Your task to perform on an android device: turn on priority inbox in the gmail app Image 0: 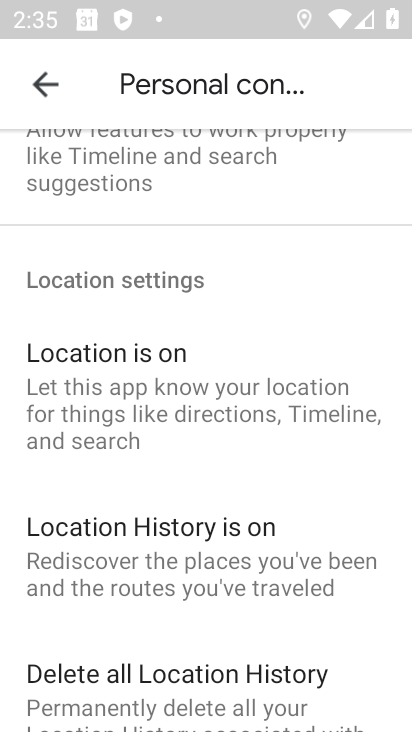
Step 0: press home button
Your task to perform on an android device: turn on priority inbox in the gmail app Image 1: 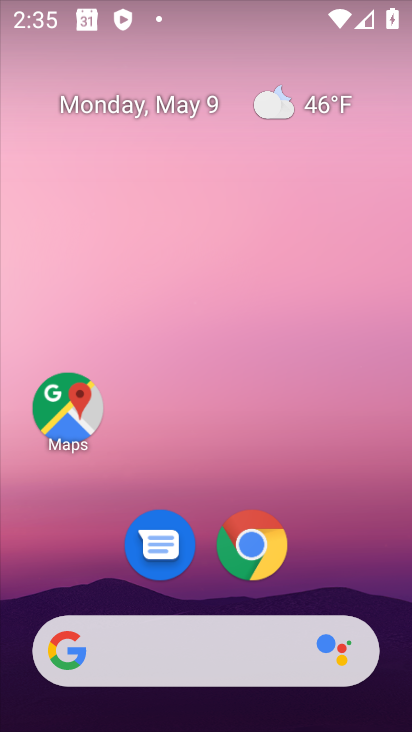
Step 1: drag from (211, 565) to (211, 289)
Your task to perform on an android device: turn on priority inbox in the gmail app Image 2: 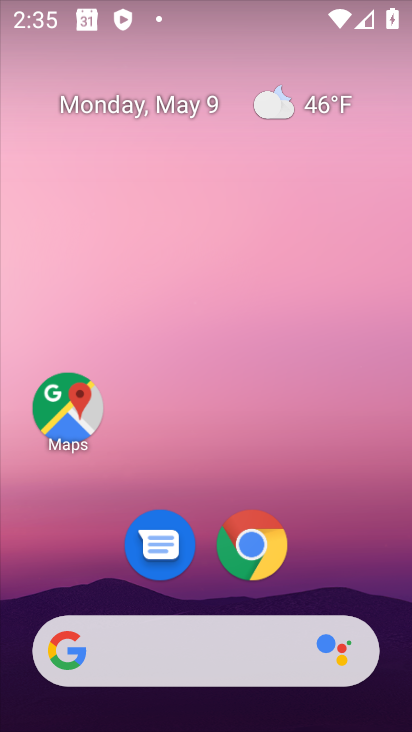
Step 2: drag from (192, 596) to (210, 130)
Your task to perform on an android device: turn on priority inbox in the gmail app Image 3: 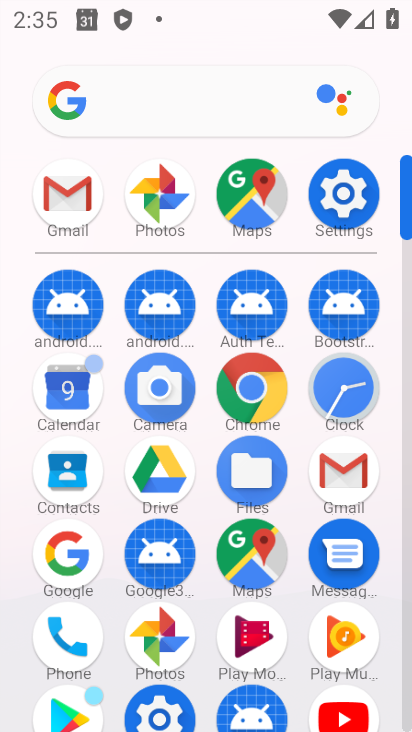
Step 3: click (79, 188)
Your task to perform on an android device: turn on priority inbox in the gmail app Image 4: 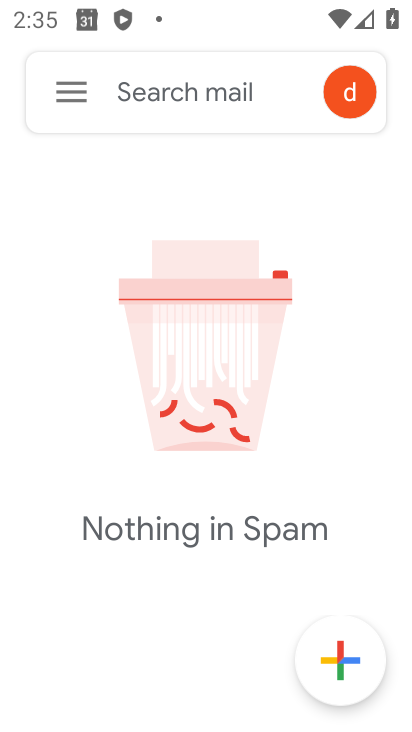
Step 4: click (69, 97)
Your task to perform on an android device: turn on priority inbox in the gmail app Image 5: 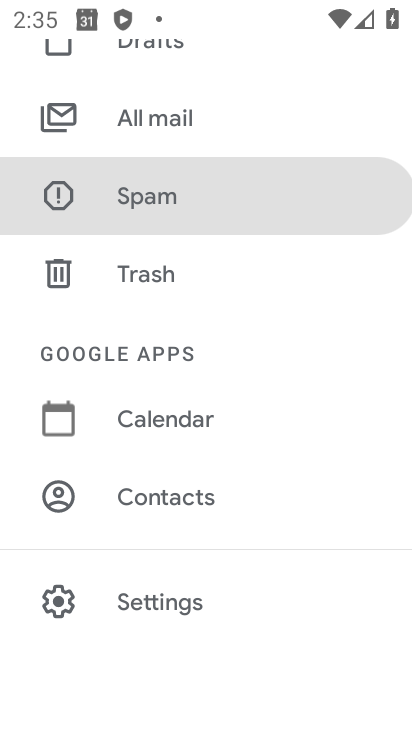
Step 5: click (136, 610)
Your task to perform on an android device: turn on priority inbox in the gmail app Image 6: 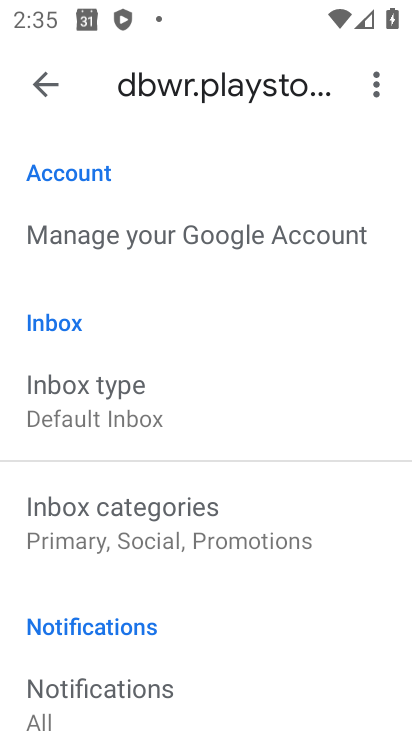
Step 6: click (168, 392)
Your task to perform on an android device: turn on priority inbox in the gmail app Image 7: 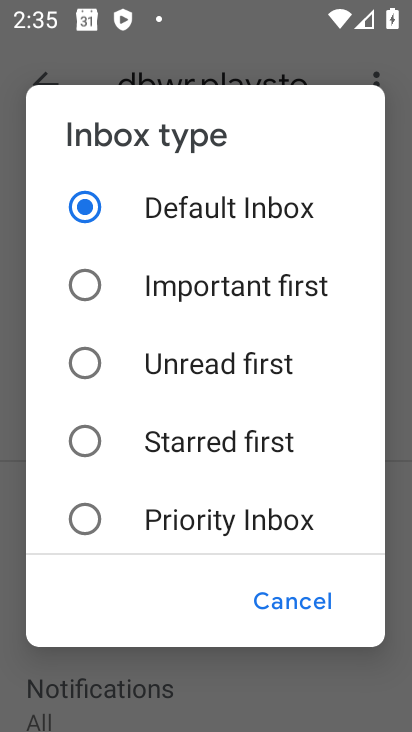
Step 7: click (112, 509)
Your task to perform on an android device: turn on priority inbox in the gmail app Image 8: 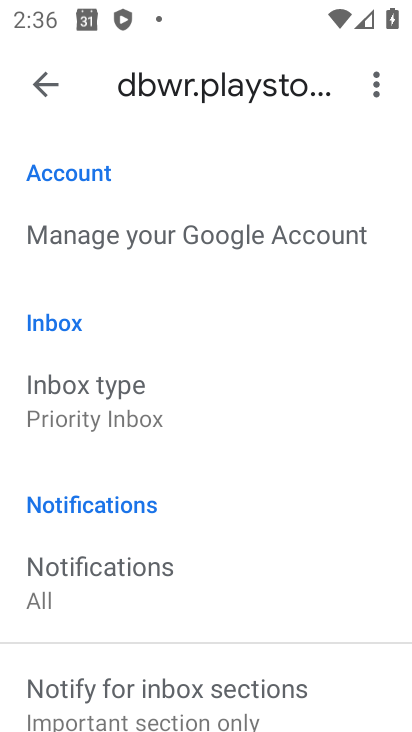
Step 8: task complete